Your task to perform on an android device: Open ESPN.com Image 0: 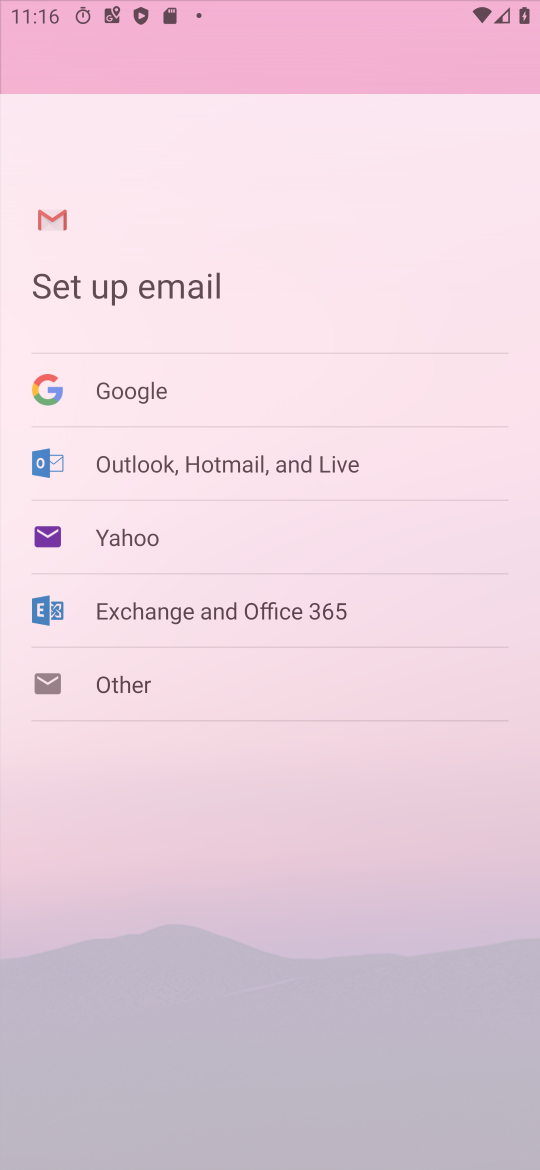
Step 0: click (191, 96)
Your task to perform on an android device: Open ESPN.com Image 1: 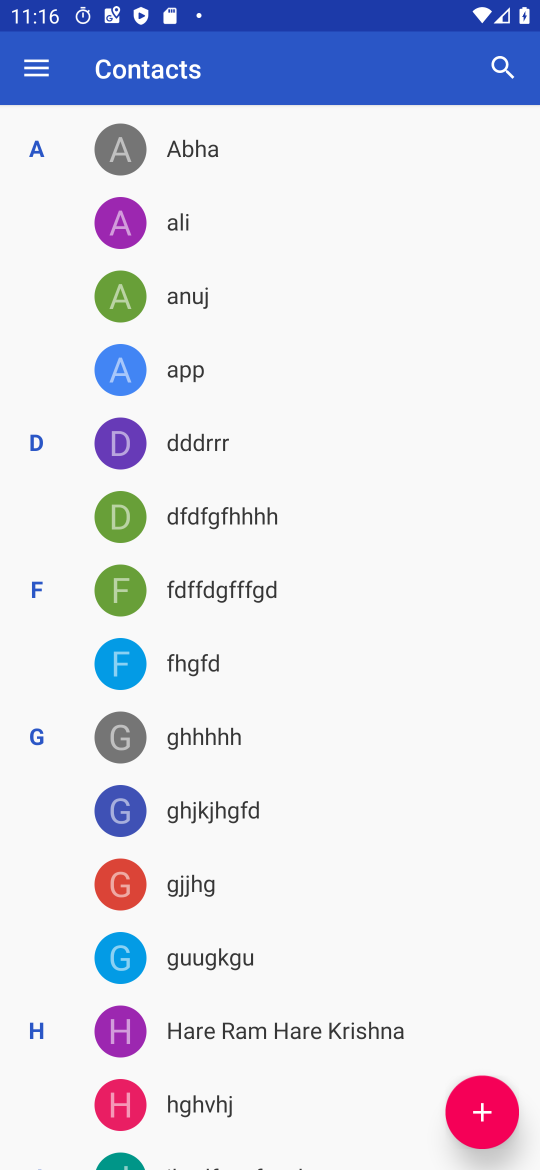
Step 1: press back button
Your task to perform on an android device: Open ESPN.com Image 2: 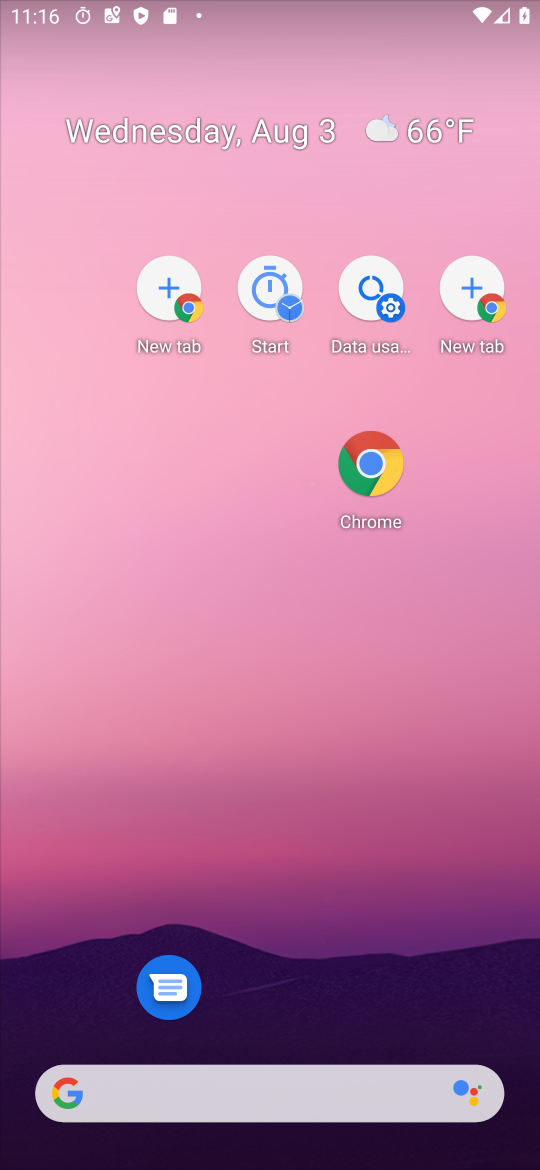
Step 2: drag from (261, 923) to (249, 47)
Your task to perform on an android device: Open ESPN.com Image 3: 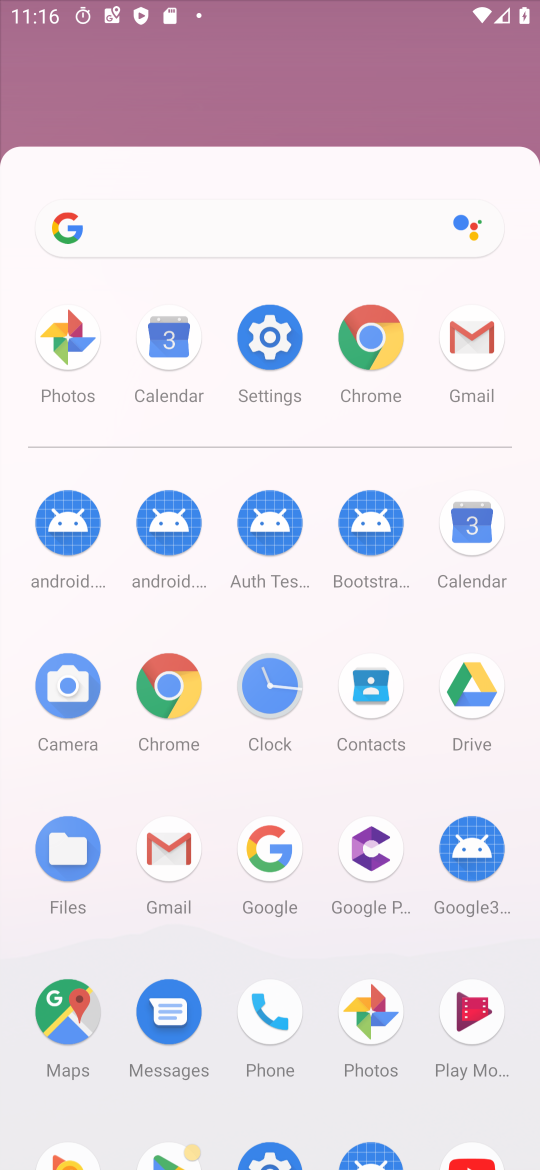
Step 3: drag from (344, 611) to (268, 319)
Your task to perform on an android device: Open ESPN.com Image 4: 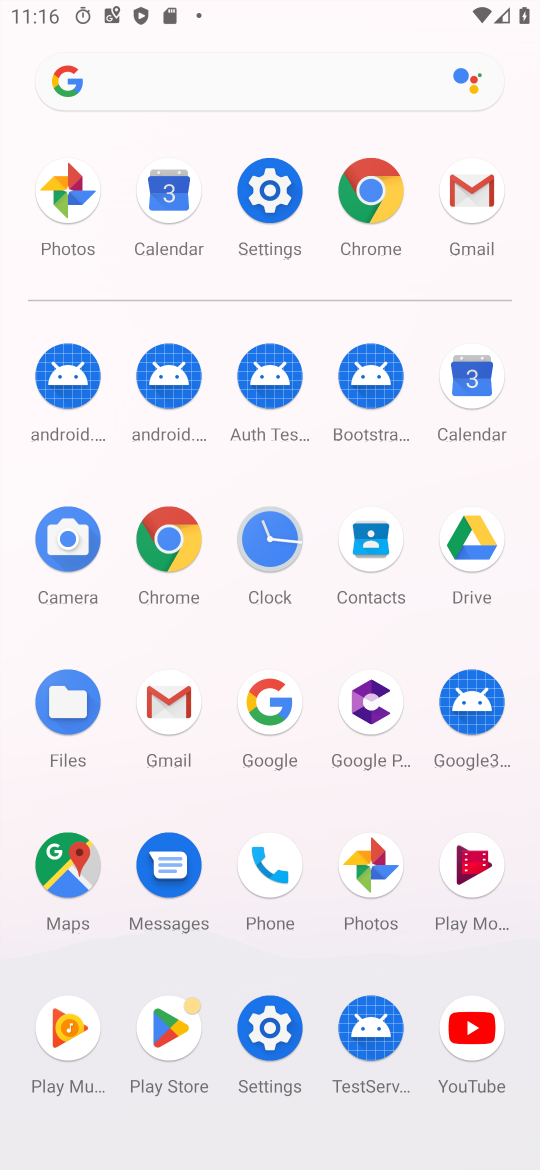
Step 4: click (378, 179)
Your task to perform on an android device: Open ESPN.com Image 5: 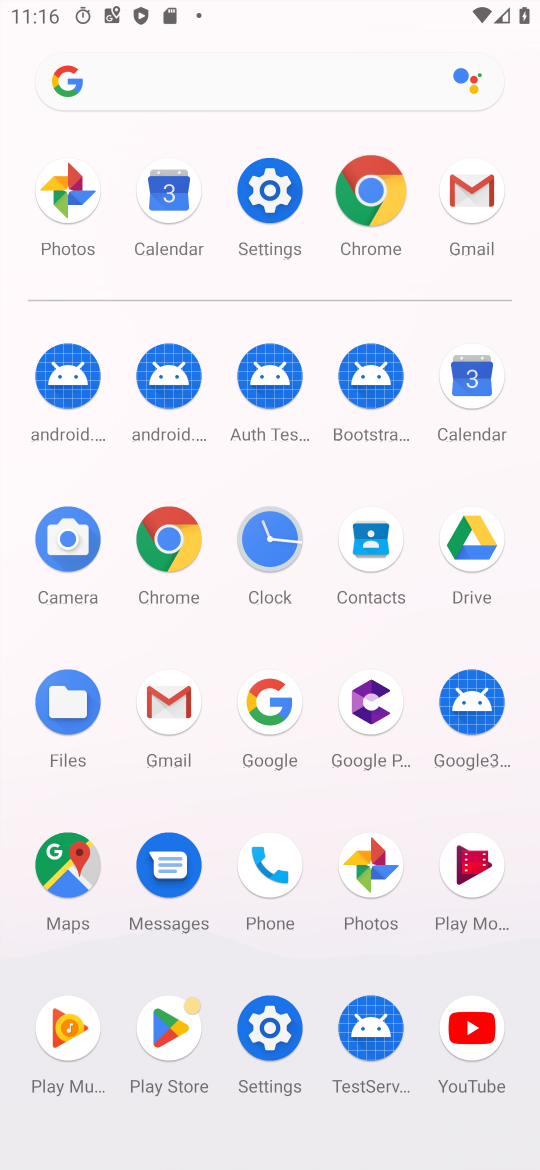
Step 5: click (377, 217)
Your task to perform on an android device: Open ESPN.com Image 6: 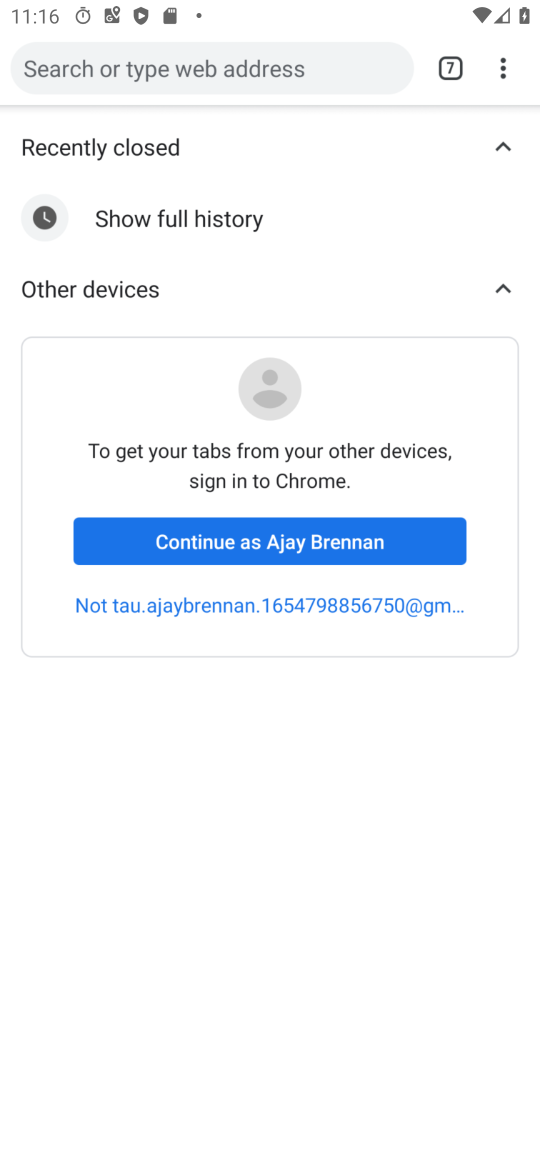
Step 6: click (371, 183)
Your task to perform on an android device: Open ESPN.com Image 7: 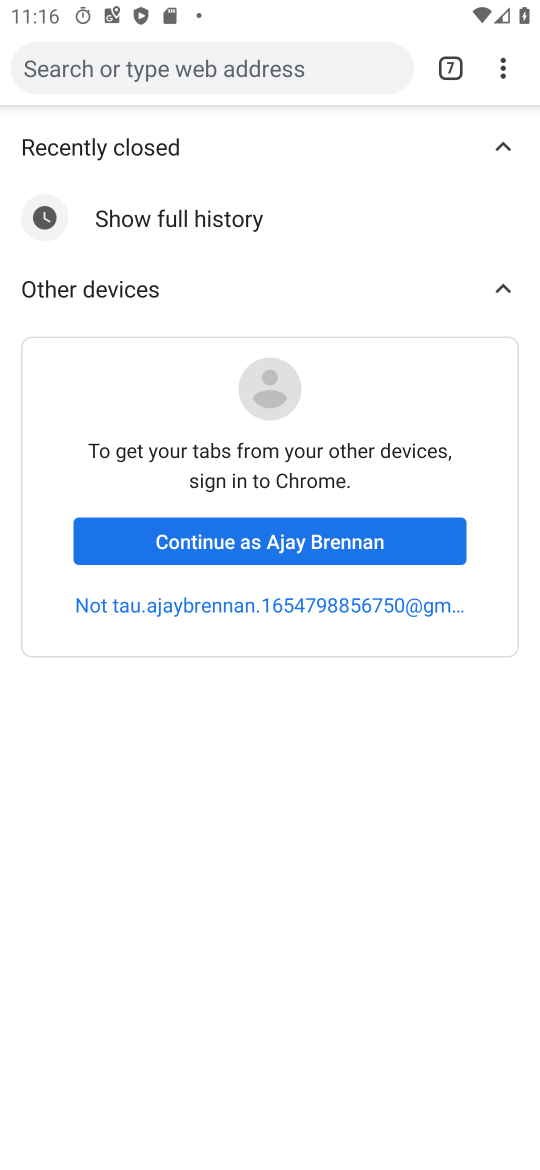
Step 7: press back button
Your task to perform on an android device: Open ESPN.com Image 8: 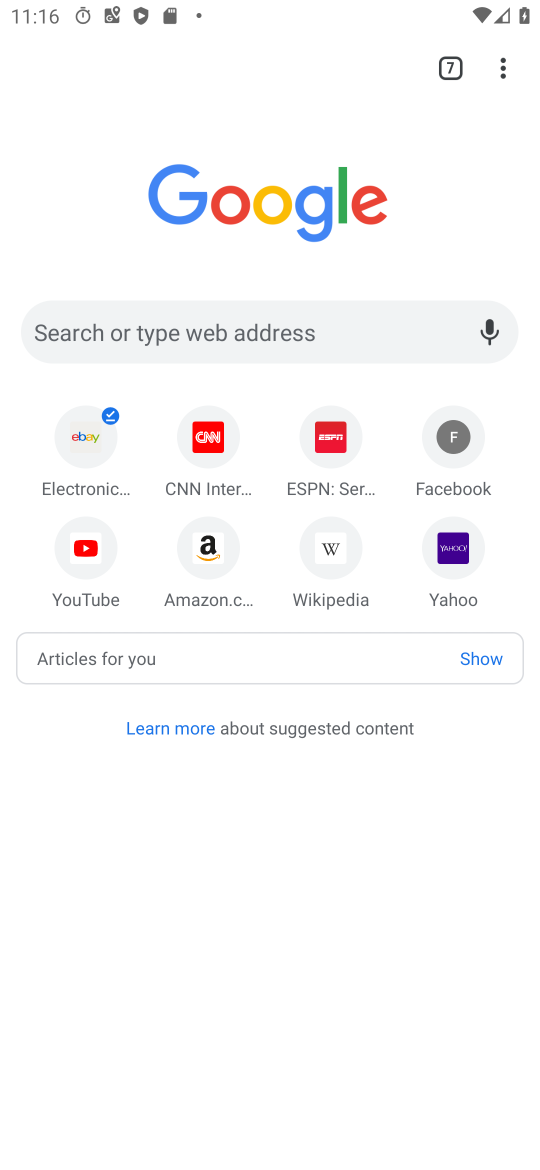
Step 8: click (303, 443)
Your task to perform on an android device: Open ESPN.com Image 9: 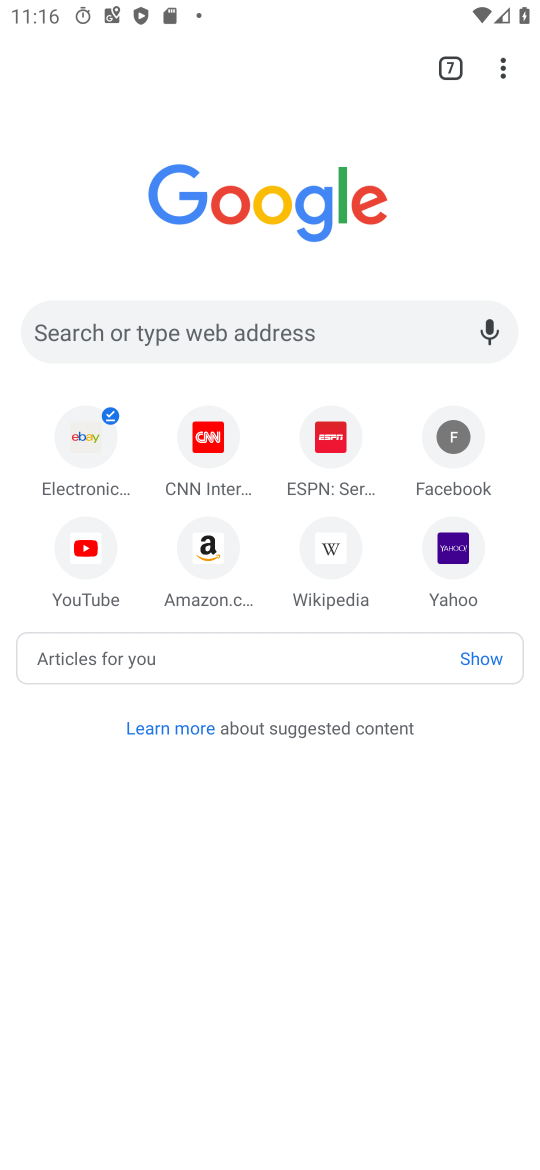
Step 9: click (303, 443)
Your task to perform on an android device: Open ESPN.com Image 10: 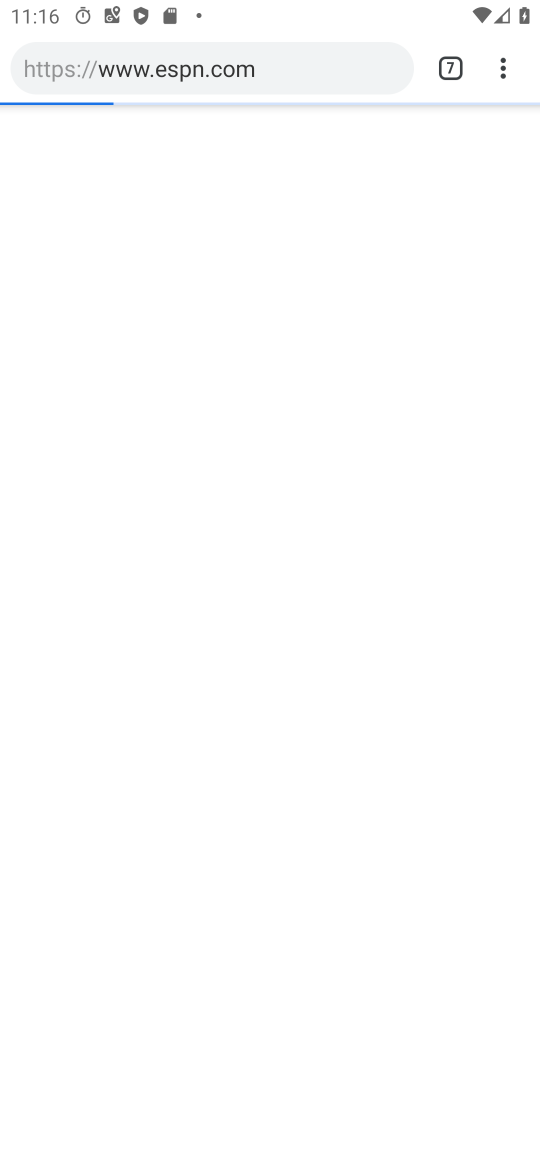
Step 10: click (318, 443)
Your task to perform on an android device: Open ESPN.com Image 11: 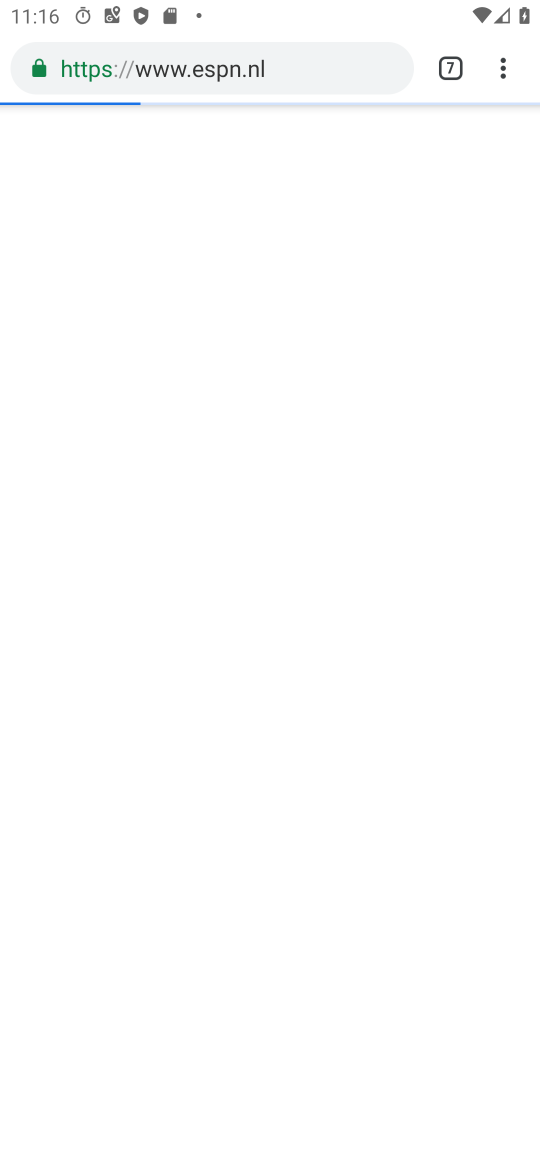
Step 11: task complete